Your task to perform on an android device: Open Yahoo.com Image 0: 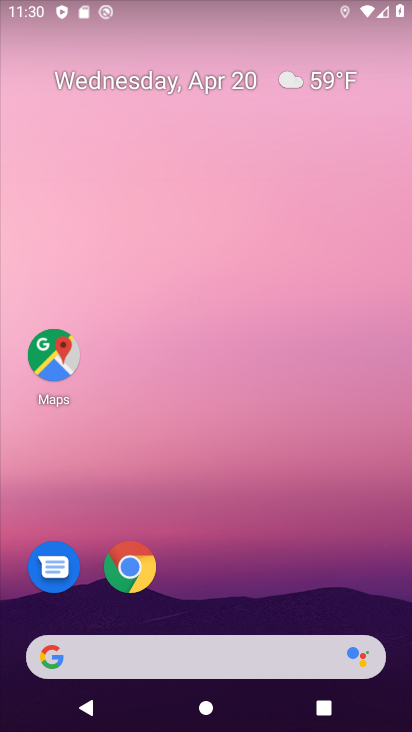
Step 0: click (132, 573)
Your task to perform on an android device: Open Yahoo.com Image 1: 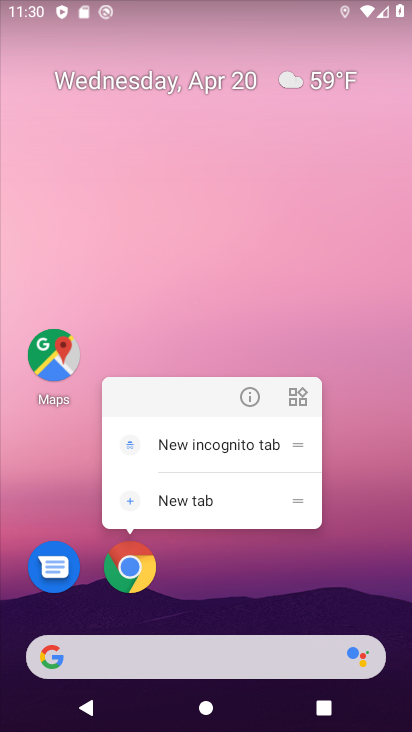
Step 1: click (131, 573)
Your task to perform on an android device: Open Yahoo.com Image 2: 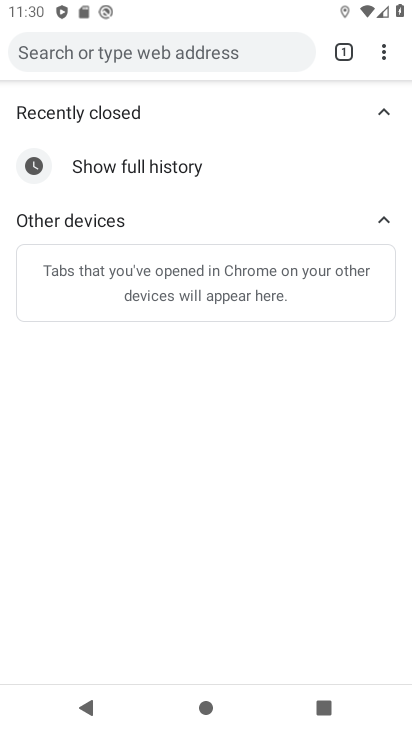
Step 2: click (140, 53)
Your task to perform on an android device: Open Yahoo.com Image 3: 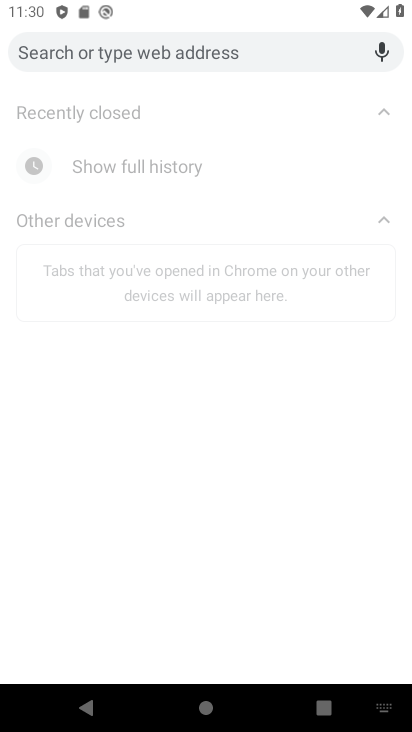
Step 3: type "yahoo.com"
Your task to perform on an android device: Open Yahoo.com Image 4: 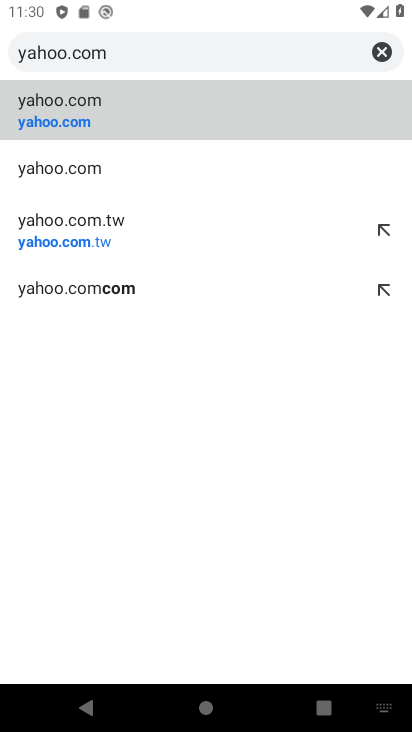
Step 4: click (46, 114)
Your task to perform on an android device: Open Yahoo.com Image 5: 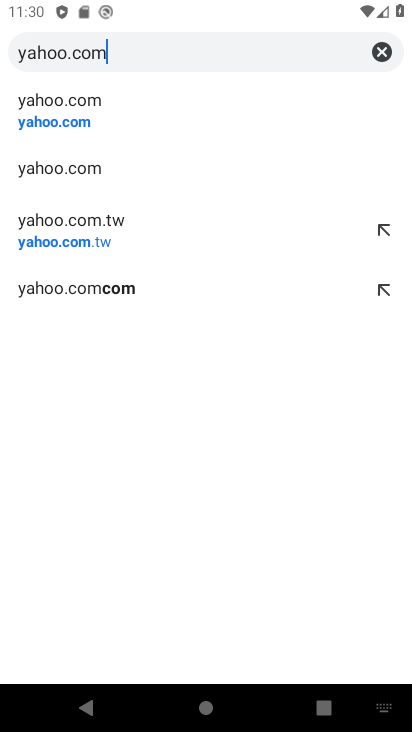
Step 5: click (50, 120)
Your task to perform on an android device: Open Yahoo.com Image 6: 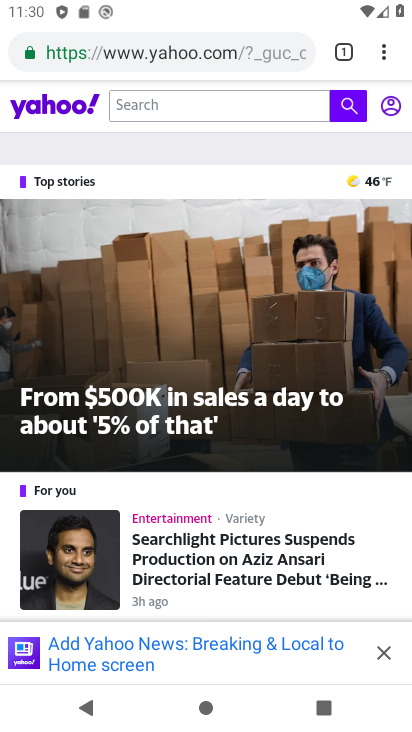
Step 6: task complete